Your task to perform on an android device: turn on translation in the chrome app Image 0: 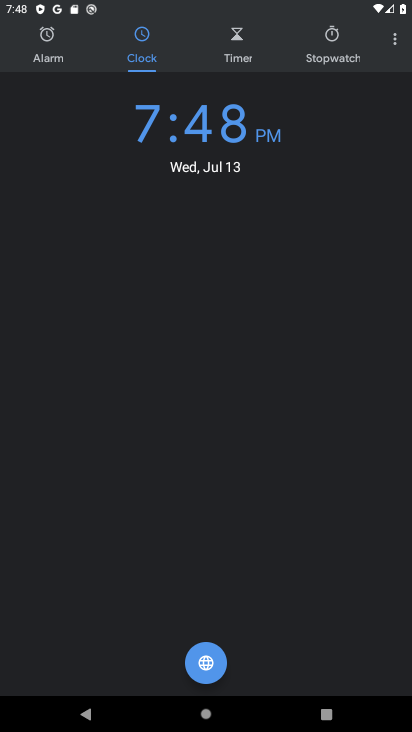
Step 0: drag from (269, 541) to (228, 213)
Your task to perform on an android device: turn on translation in the chrome app Image 1: 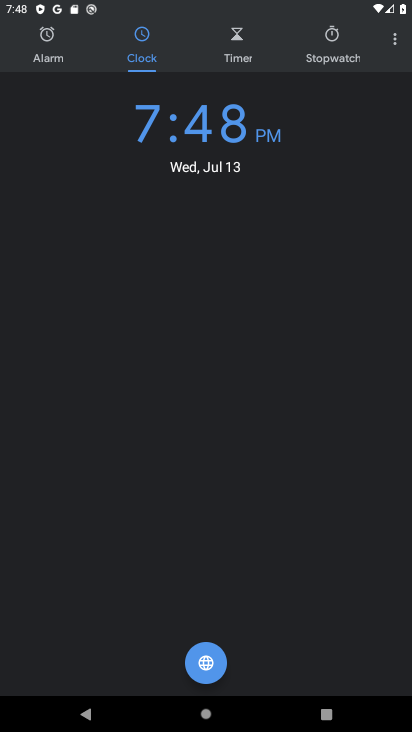
Step 1: press back button
Your task to perform on an android device: turn on translation in the chrome app Image 2: 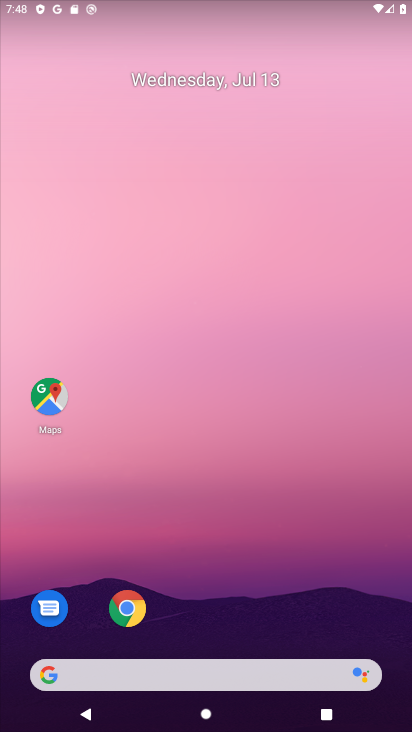
Step 2: drag from (275, 664) to (201, 179)
Your task to perform on an android device: turn on translation in the chrome app Image 3: 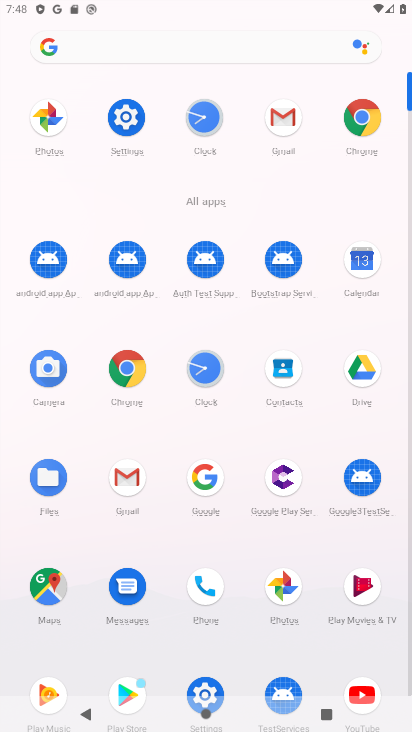
Step 3: click (357, 120)
Your task to perform on an android device: turn on translation in the chrome app Image 4: 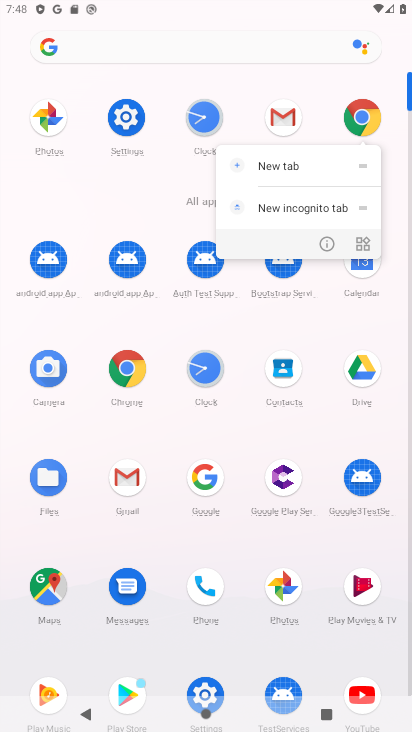
Step 4: click (362, 115)
Your task to perform on an android device: turn on translation in the chrome app Image 5: 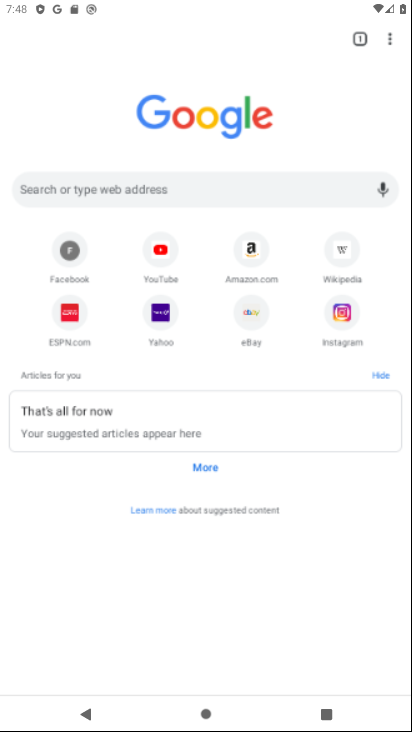
Step 5: click (376, 117)
Your task to perform on an android device: turn on translation in the chrome app Image 6: 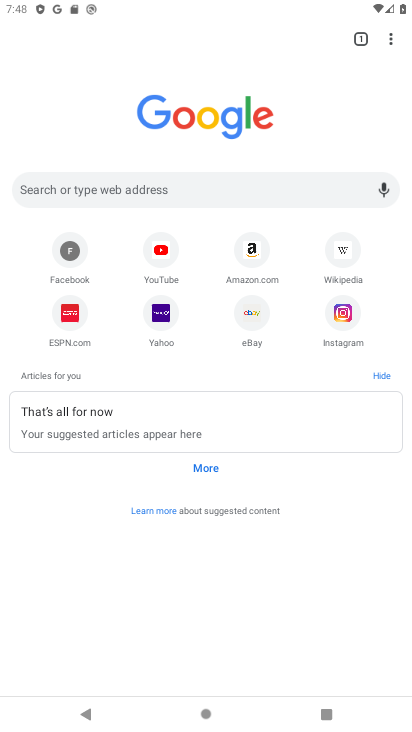
Step 6: drag from (385, 38) to (249, 320)
Your task to perform on an android device: turn on translation in the chrome app Image 7: 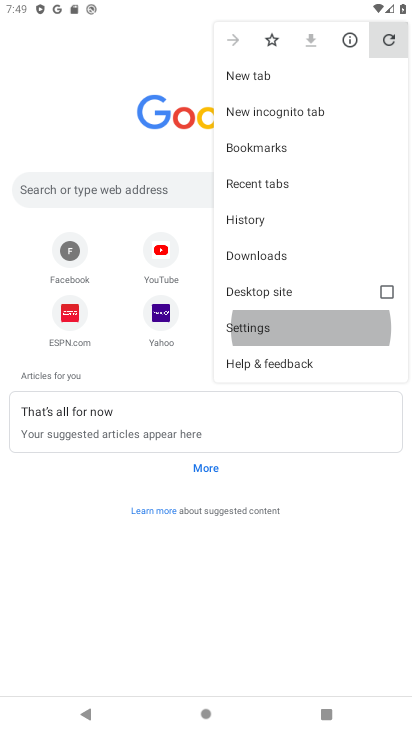
Step 7: click (249, 320)
Your task to perform on an android device: turn on translation in the chrome app Image 8: 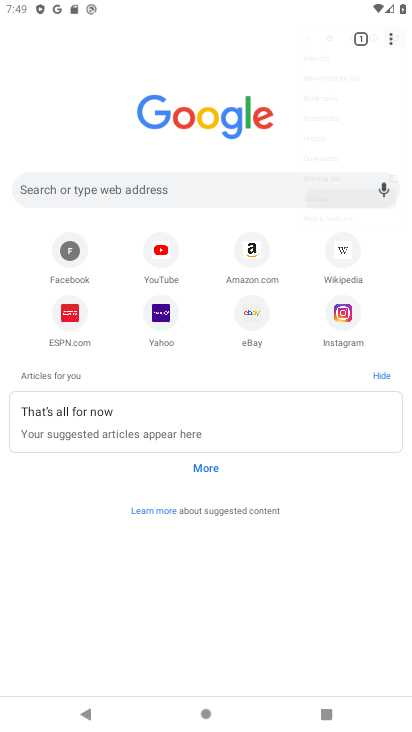
Step 8: click (251, 319)
Your task to perform on an android device: turn on translation in the chrome app Image 9: 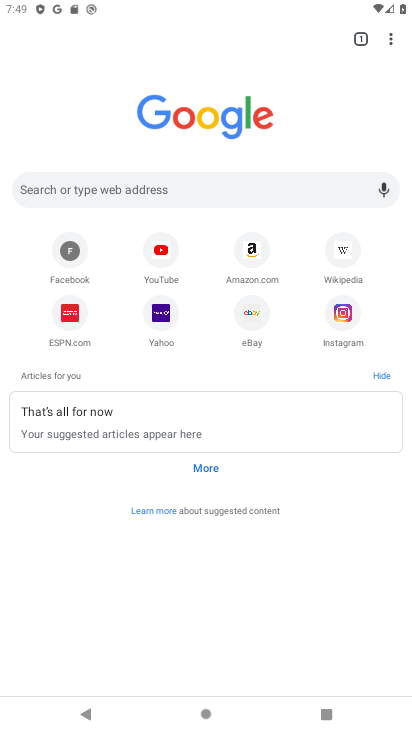
Step 9: click (251, 319)
Your task to perform on an android device: turn on translation in the chrome app Image 10: 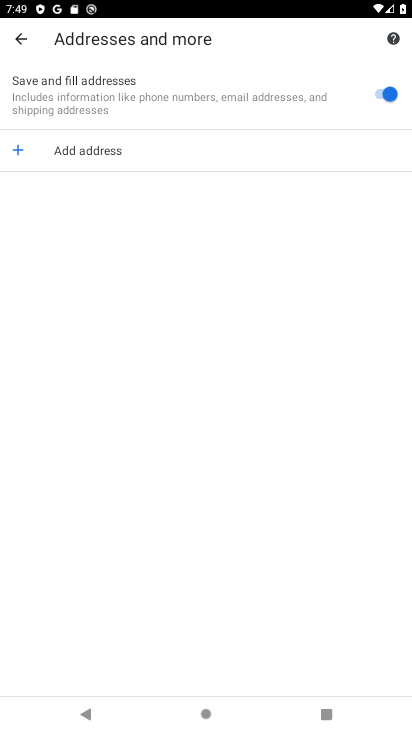
Step 10: click (24, 45)
Your task to perform on an android device: turn on translation in the chrome app Image 11: 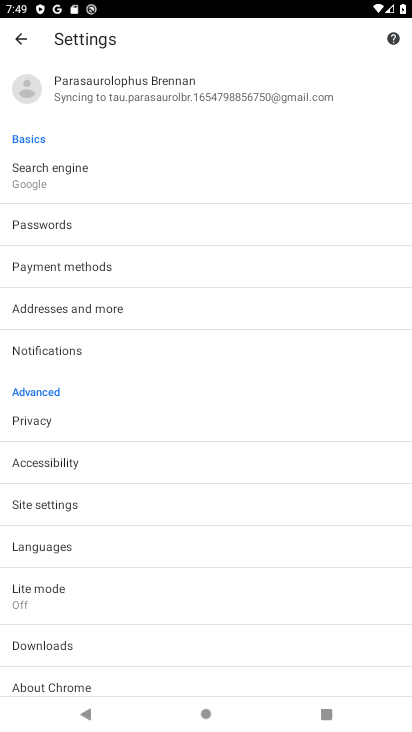
Step 11: click (39, 545)
Your task to perform on an android device: turn on translation in the chrome app Image 12: 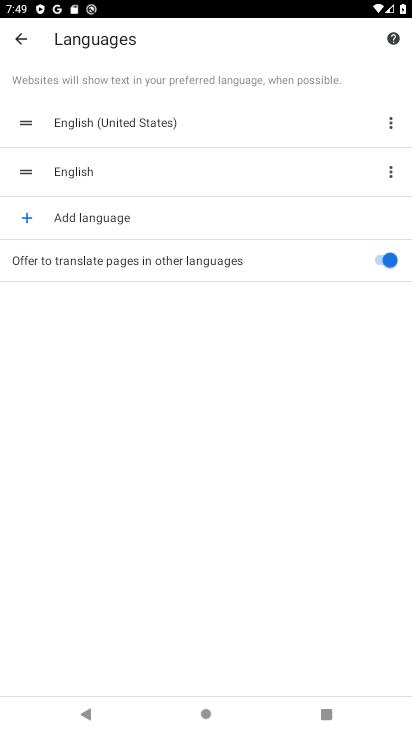
Step 12: task complete